Your task to perform on an android device: Go to Google Image 0: 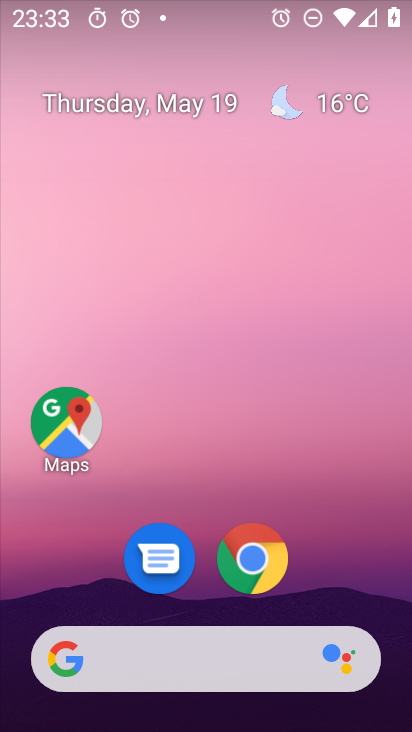
Step 0: drag from (194, 711) to (194, 216)
Your task to perform on an android device: Go to Google Image 1: 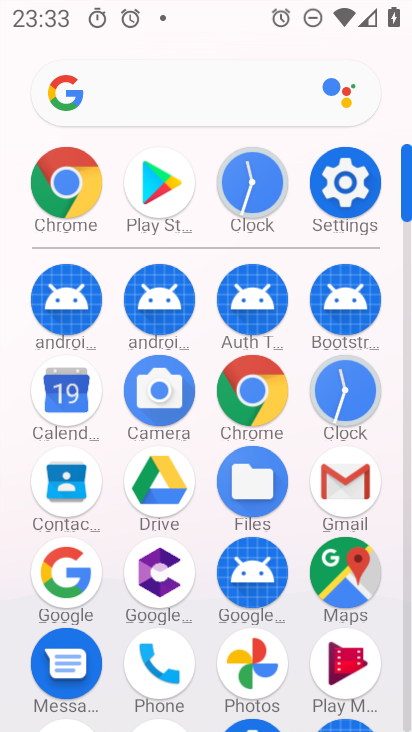
Step 1: click (67, 578)
Your task to perform on an android device: Go to Google Image 2: 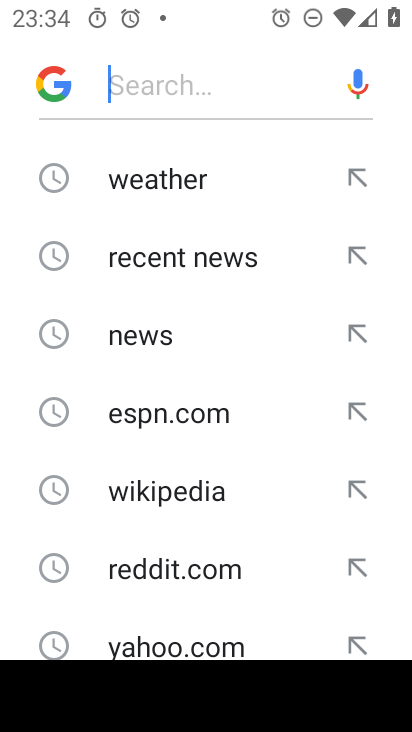
Step 2: task complete